Your task to perform on an android device: set an alarm Image 0: 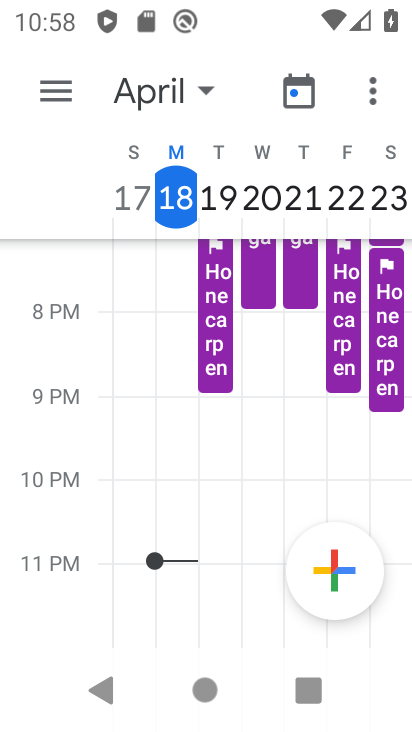
Step 0: press home button
Your task to perform on an android device: set an alarm Image 1: 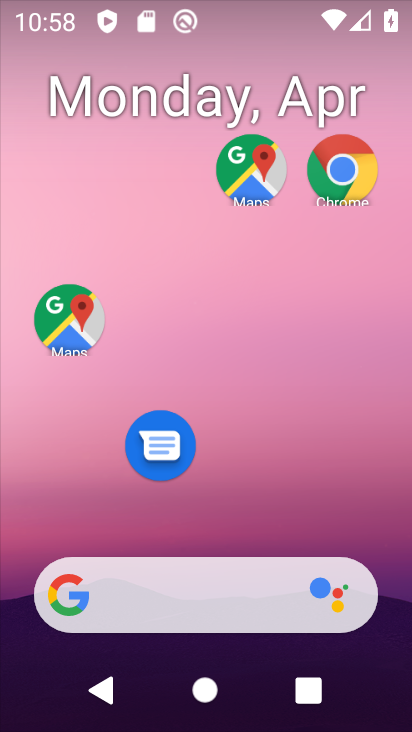
Step 1: drag from (225, 509) to (218, 117)
Your task to perform on an android device: set an alarm Image 2: 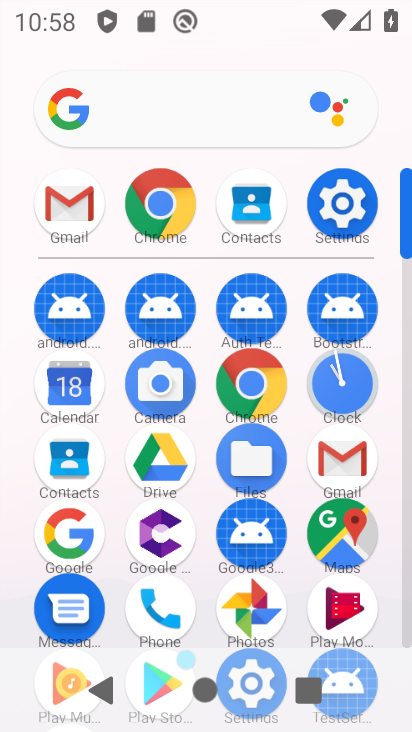
Step 2: click (322, 393)
Your task to perform on an android device: set an alarm Image 3: 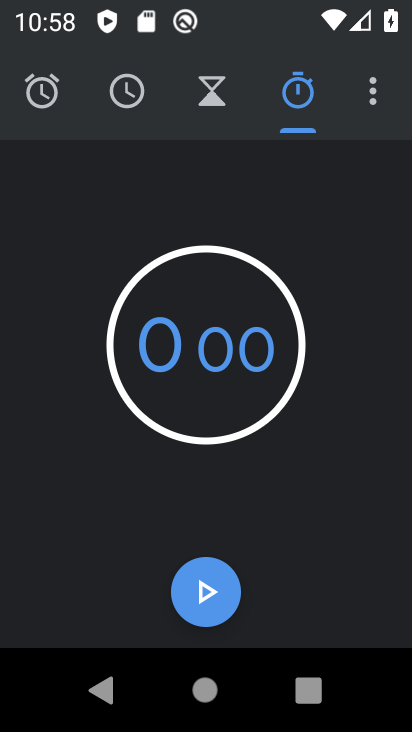
Step 3: click (49, 91)
Your task to perform on an android device: set an alarm Image 4: 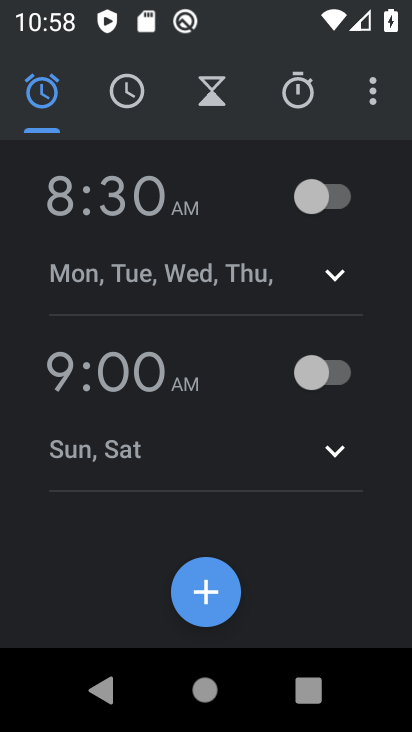
Step 4: click (340, 199)
Your task to perform on an android device: set an alarm Image 5: 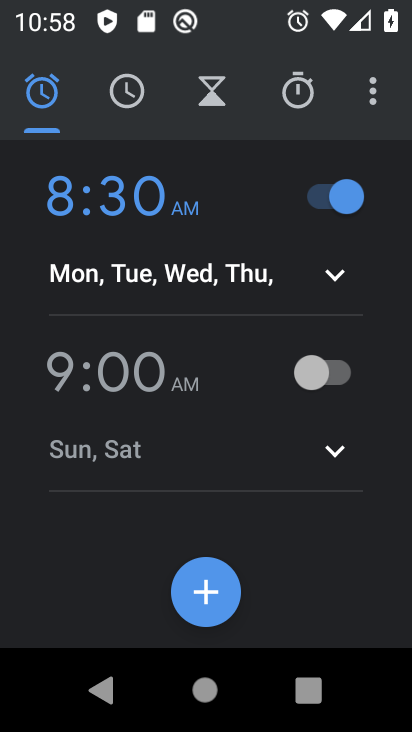
Step 5: task complete